Your task to perform on an android device: set an alarm Image 0: 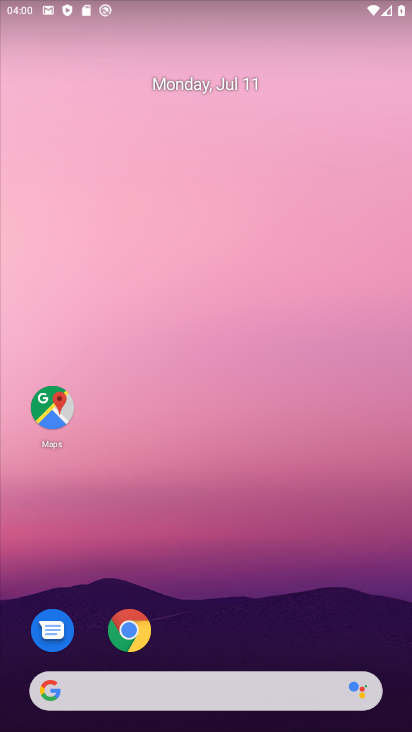
Step 0: press home button
Your task to perform on an android device: set an alarm Image 1: 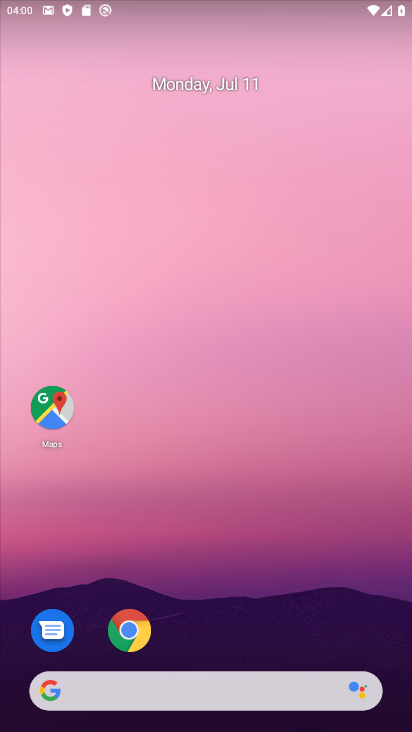
Step 1: drag from (223, 645) to (289, 29)
Your task to perform on an android device: set an alarm Image 2: 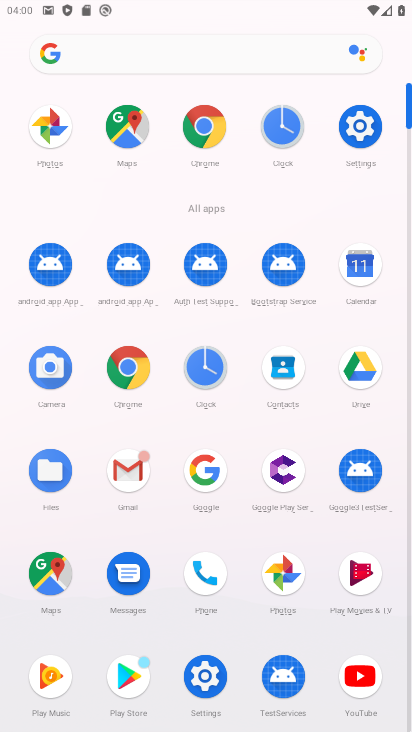
Step 2: click (285, 119)
Your task to perform on an android device: set an alarm Image 3: 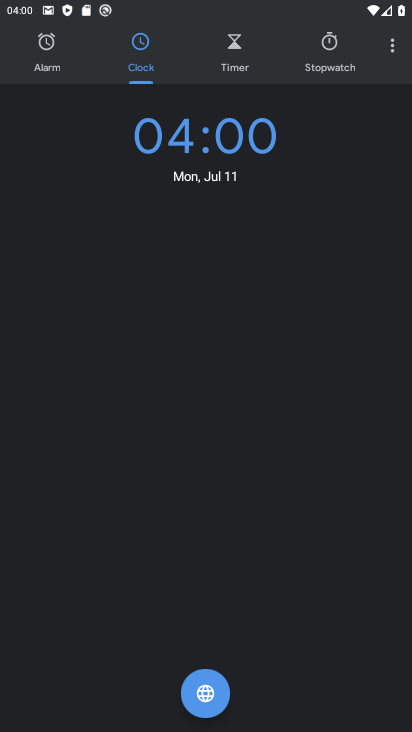
Step 3: click (45, 45)
Your task to perform on an android device: set an alarm Image 4: 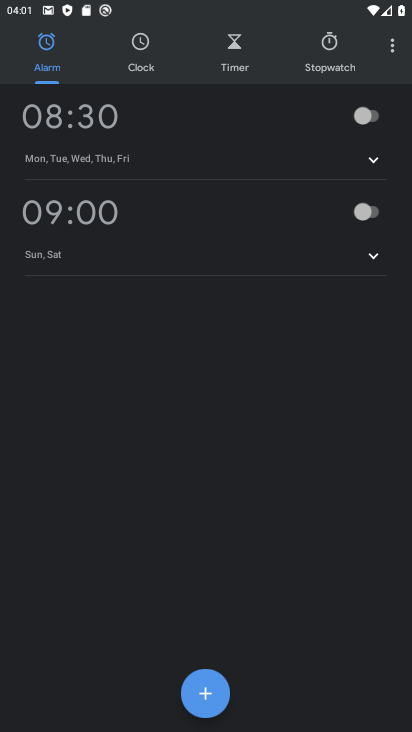
Step 4: click (371, 117)
Your task to perform on an android device: set an alarm Image 5: 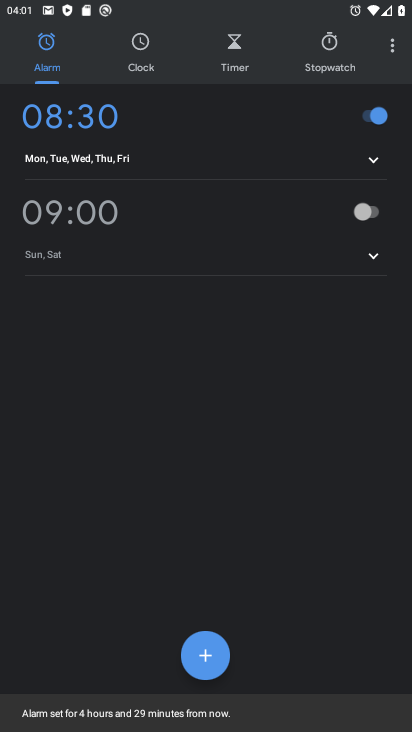
Step 5: click (364, 207)
Your task to perform on an android device: set an alarm Image 6: 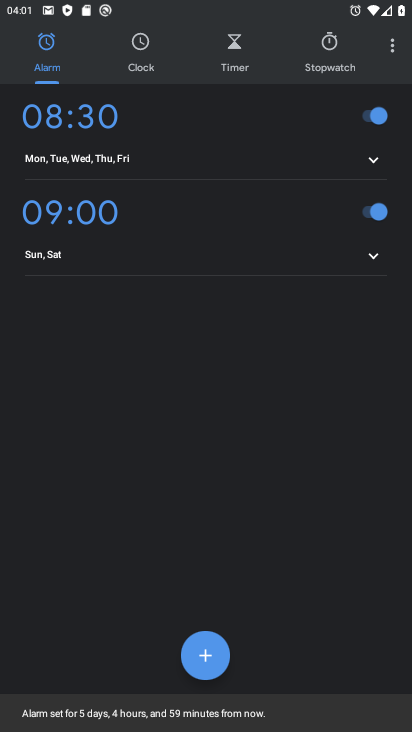
Step 6: task complete